Your task to perform on an android device: Search for Mexican restaurants on Maps Image 0: 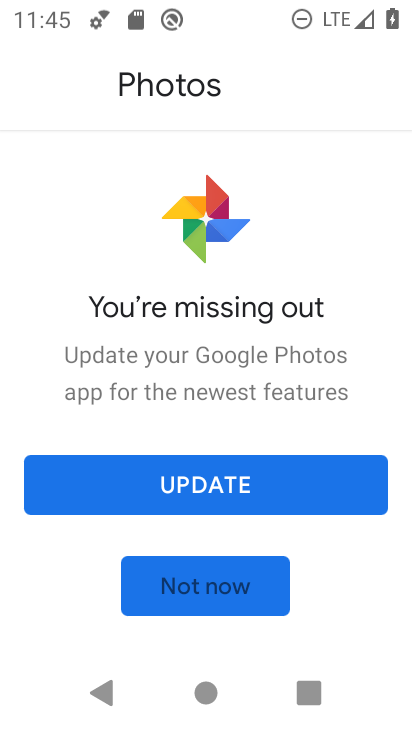
Step 0: press home button
Your task to perform on an android device: Search for Mexican restaurants on Maps Image 1: 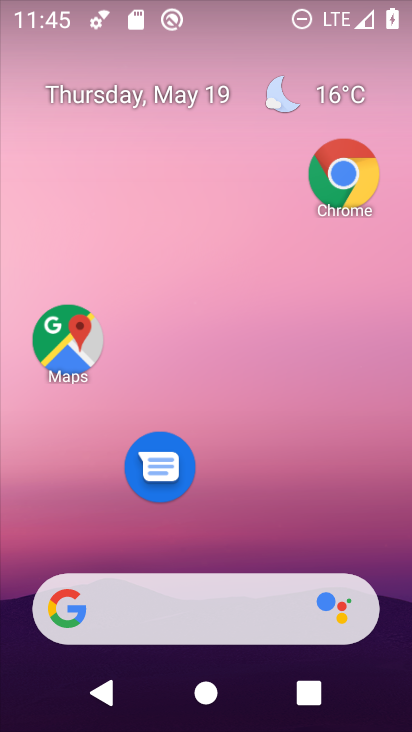
Step 1: click (63, 322)
Your task to perform on an android device: Search for Mexican restaurants on Maps Image 2: 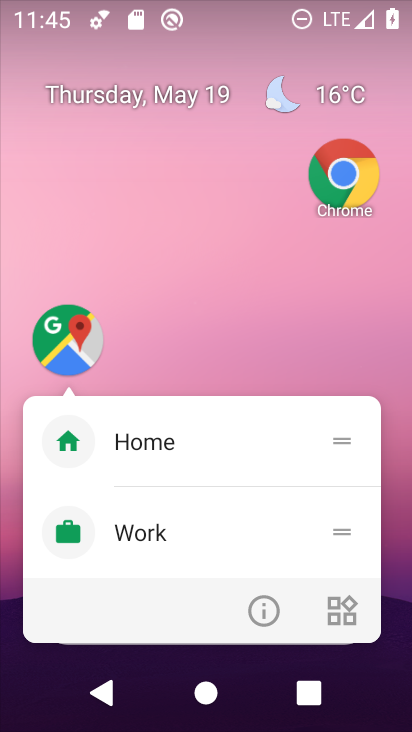
Step 2: click (86, 332)
Your task to perform on an android device: Search for Mexican restaurants on Maps Image 3: 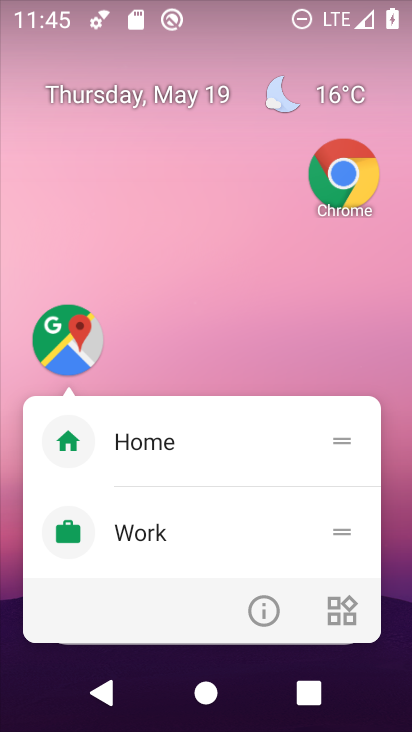
Step 3: click (79, 329)
Your task to perform on an android device: Search for Mexican restaurants on Maps Image 4: 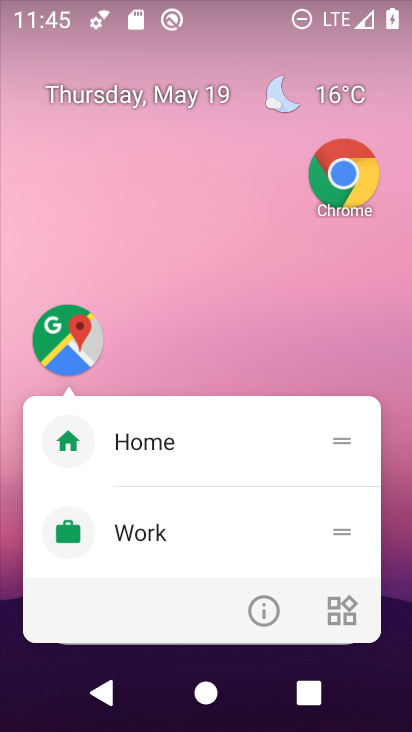
Step 4: click (78, 328)
Your task to perform on an android device: Search for Mexican restaurants on Maps Image 5: 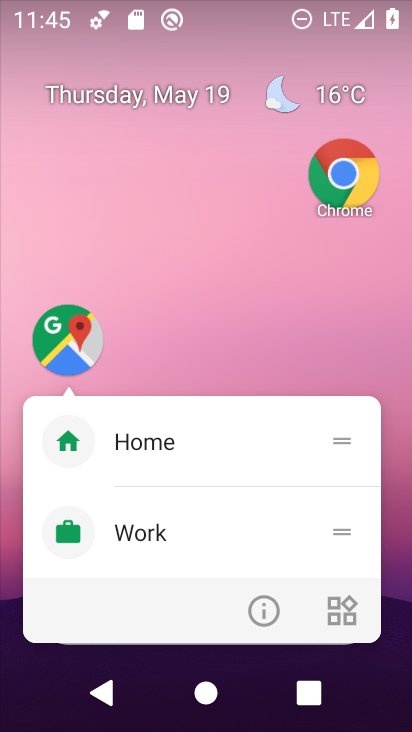
Step 5: click (48, 332)
Your task to perform on an android device: Search for Mexican restaurants on Maps Image 6: 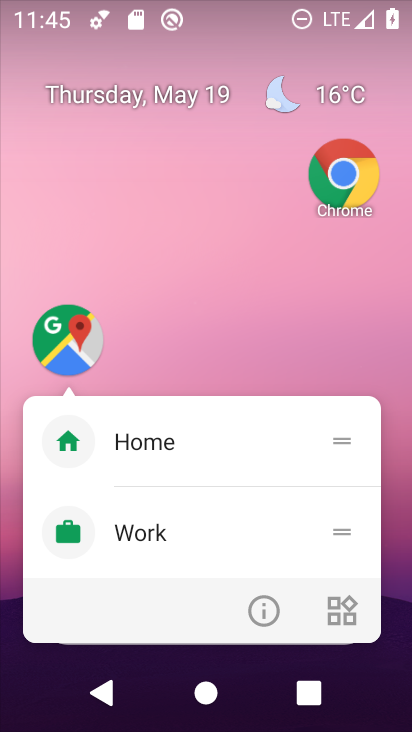
Step 6: click (57, 329)
Your task to perform on an android device: Search for Mexican restaurants on Maps Image 7: 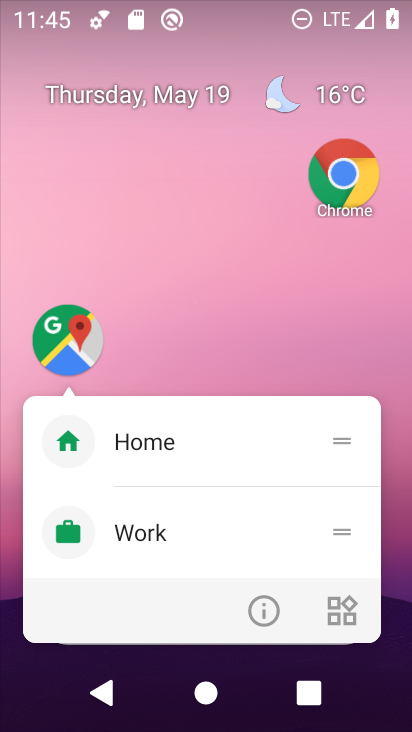
Step 7: click (69, 313)
Your task to perform on an android device: Search for Mexican restaurants on Maps Image 8: 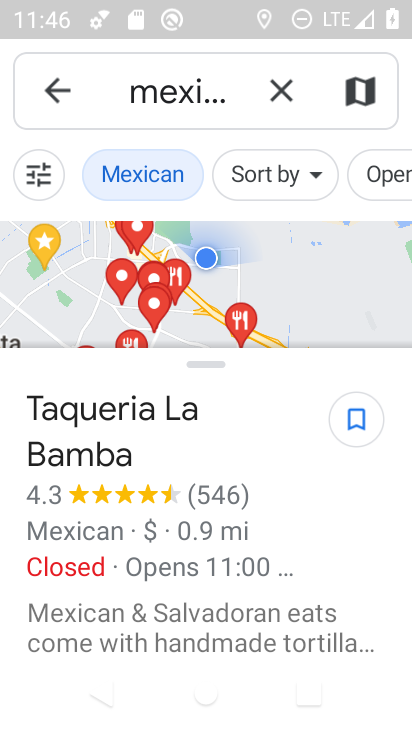
Step 8: task complete